Your task to perform on an android device: find snoozed emails in the gmail app Image 0: 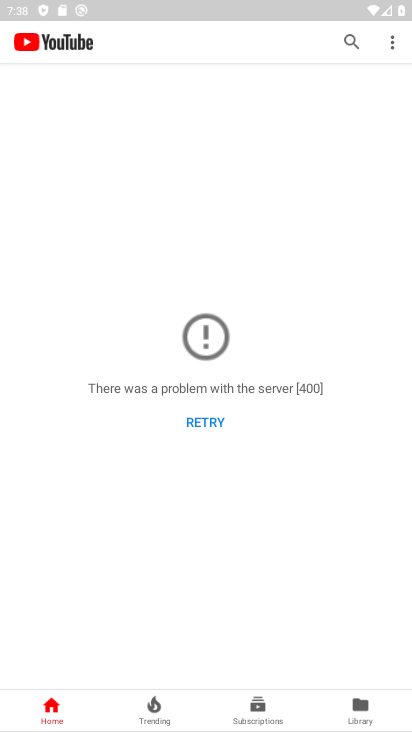
Step 0: press back button
Your task to perform on an android device: find snoozed emails in the gmail app Image 1: 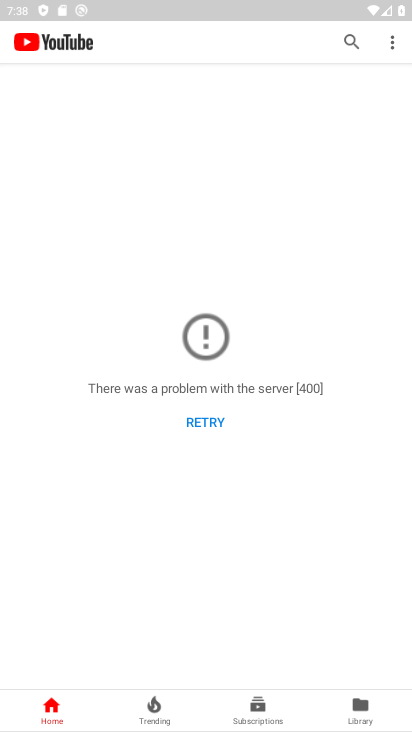
Step 1: press back button
Your task to perform on an android device: find snoozed emails in the gmail app Image 2: 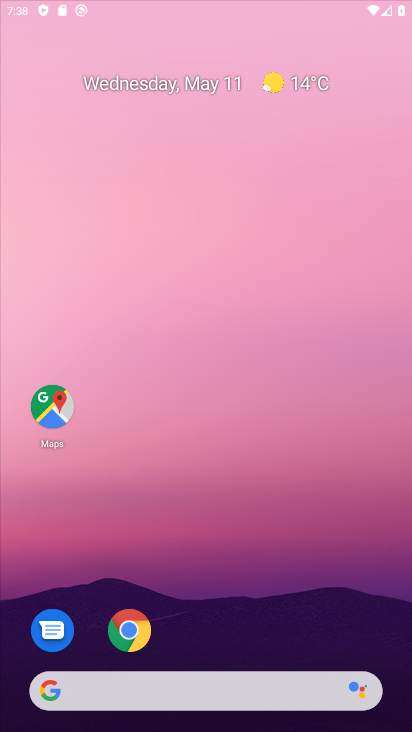
Step 2: press back button
Your task to perform on an android device: find snoozed emails in the gmail app Image 3: 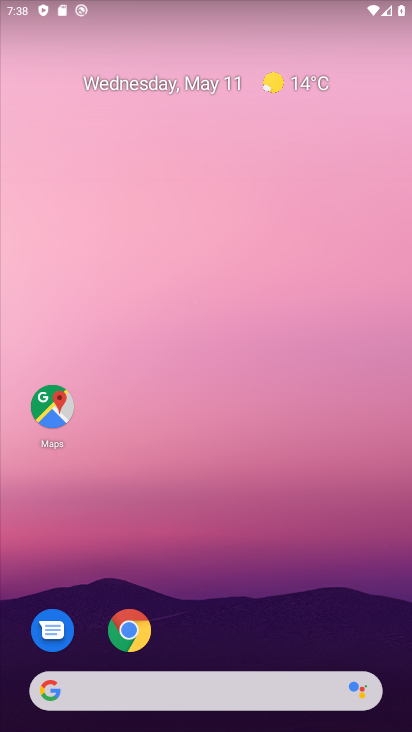
Step 3: drag from (339, 603) to (338, 3)
Your task to perform on an android device: find snoozed emails in the gmail app Image 4: 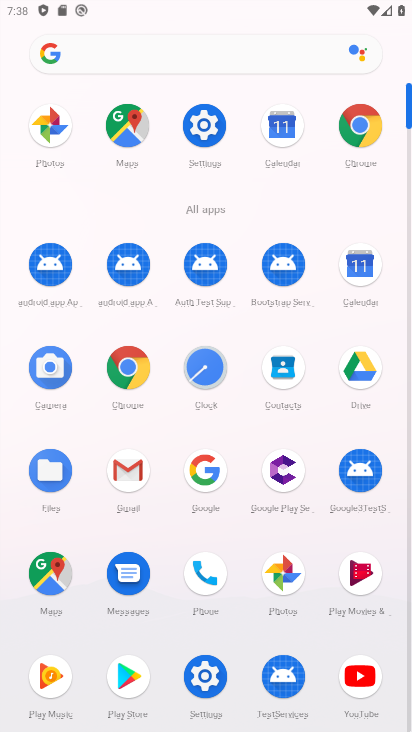
Step 4: click (122, 477)
Your task to perform on an android device: find snoozed emails in the gmail app Image 5: 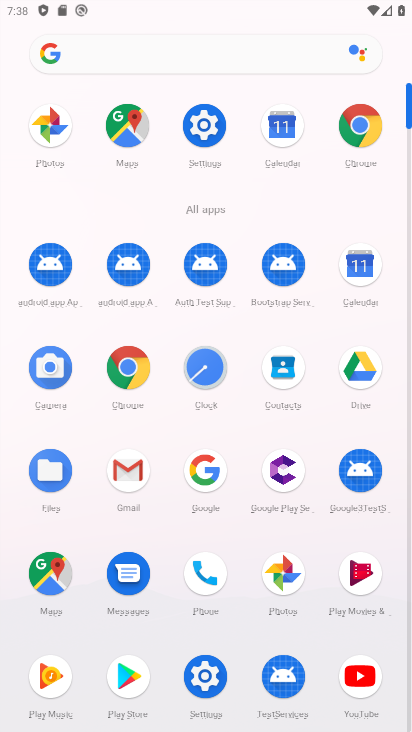
Step 5: click (122, 477)
Your task to perform on an android device: find snoozed emails in the gmail app Image 6: 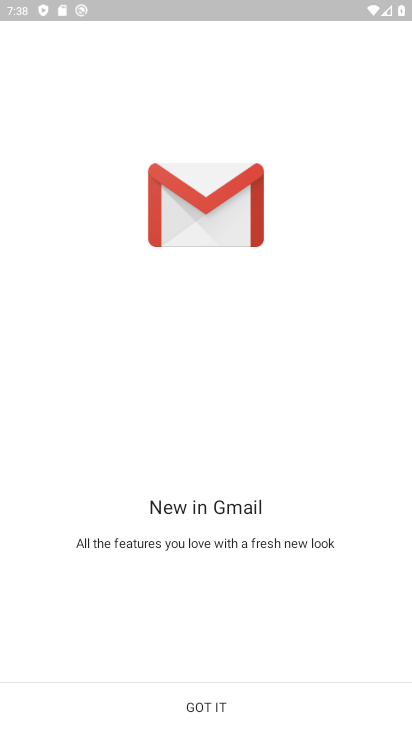
Step 6: click (209, 703)
Your task to perform on an android device: find snoozed emails in the gmail app Image 7: 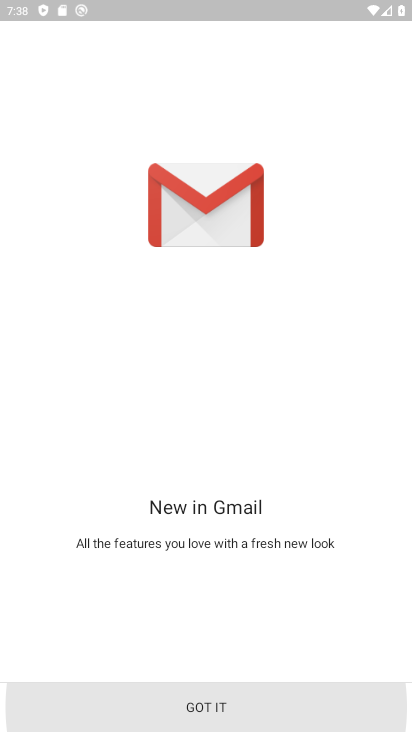
Step 7: click (210, 702)
Your task to perform on an android device: find snoozed emails in the gmail app Image 8: 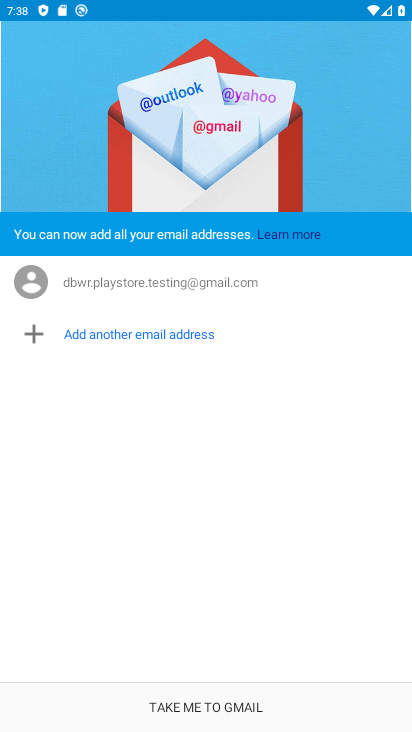
Step 8: click (218, 709)
Your task to perform on an android device: find snoozed emails in the gmail app Image 9: 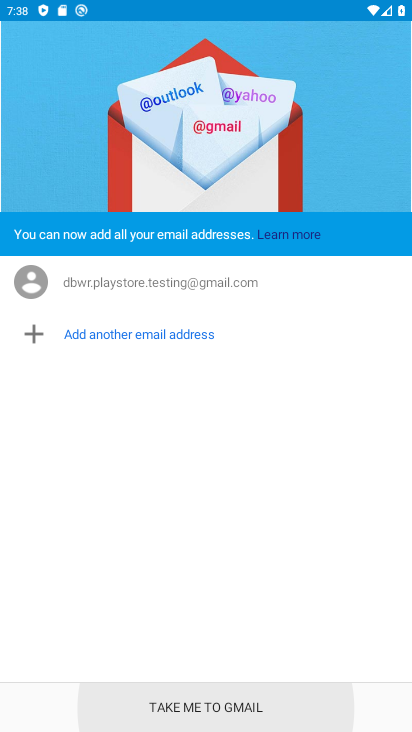
Step 9: click (218, 710)
Your task to perform on an android device: find snoozed emails in the gmail app Image 10: 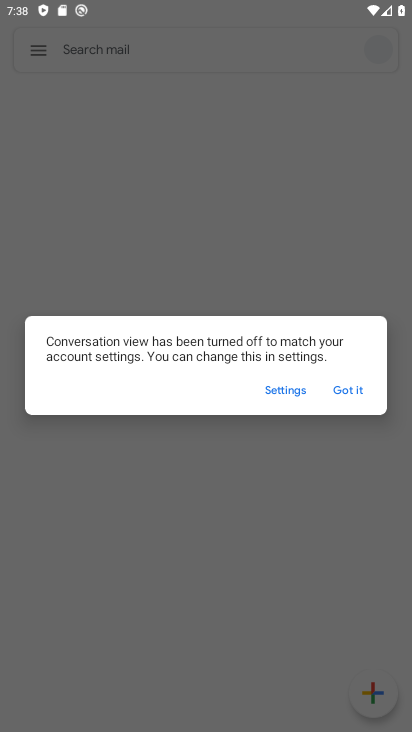
Step 10: click (339, 399)
Your task to perform on an android device: find snoozed emails in the gmail app Image 11: 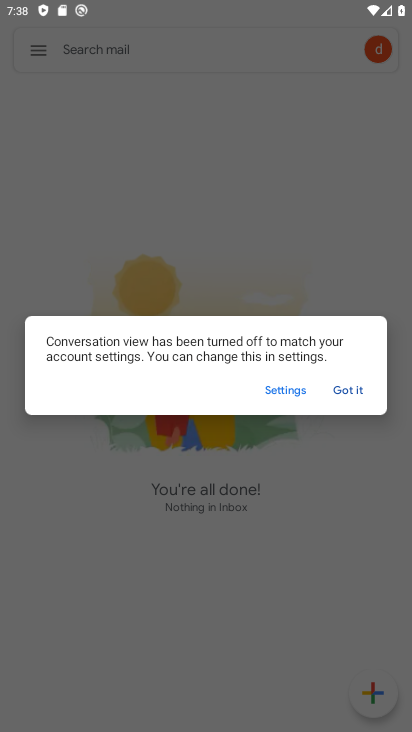
Step 11: click (339, 399)
Your task to perform on an android device: find snoozed emails in the gmail app Image 12: 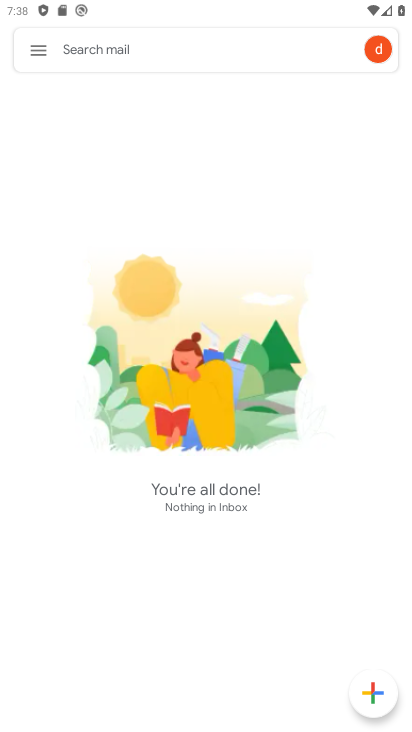
Step 12: click (34, 50)
Your task to perform on an android device: find snoozed emails in the gmail app Image 13: 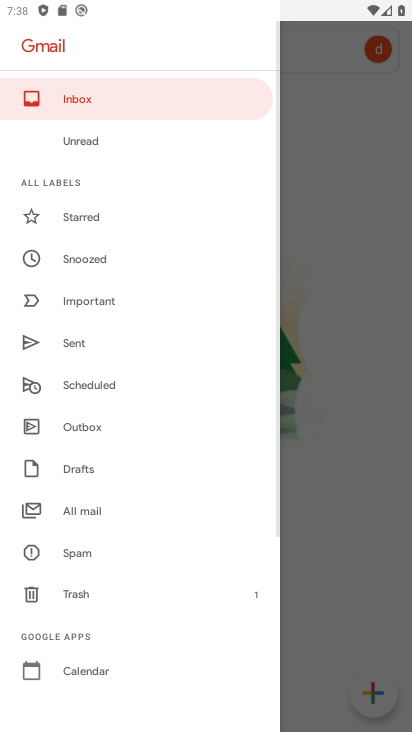
Step 13: click (91, 257)
Your task to perform on an android device: find snoozed emails in the gmail app Image 14: 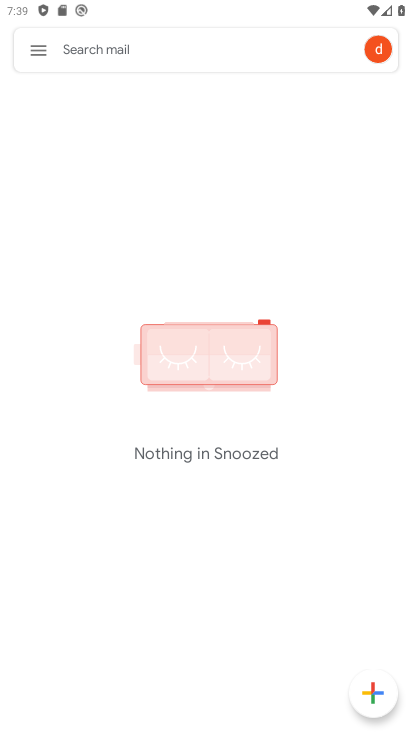
Step 14: task complete